Your task to perform on an android device: What's on my calendar today? Image 0: 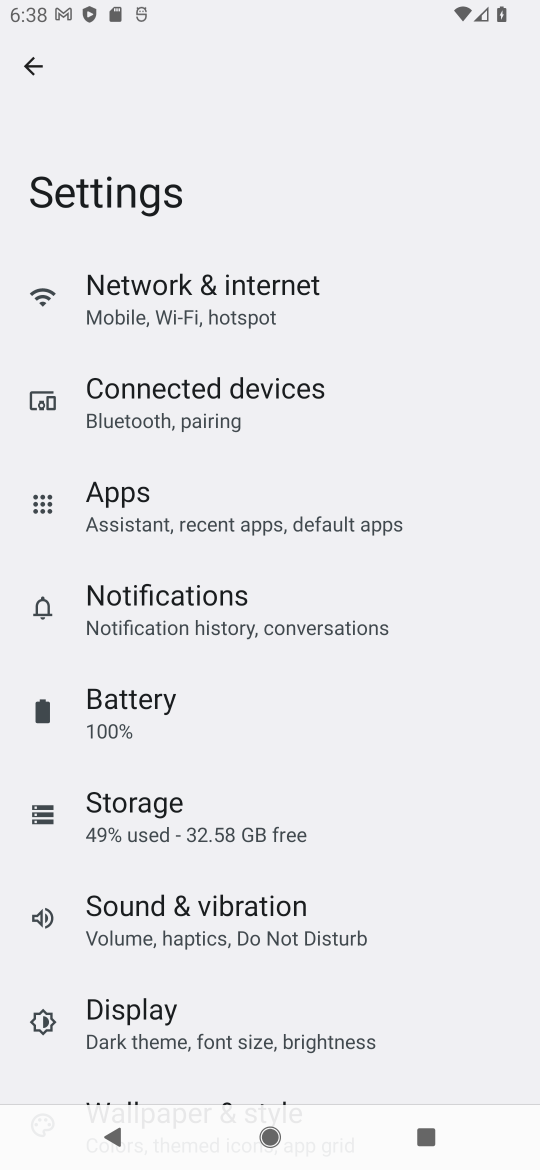
Step 0: press home button
Your task to perform on an android device: What's on my calendar today? Image 1: 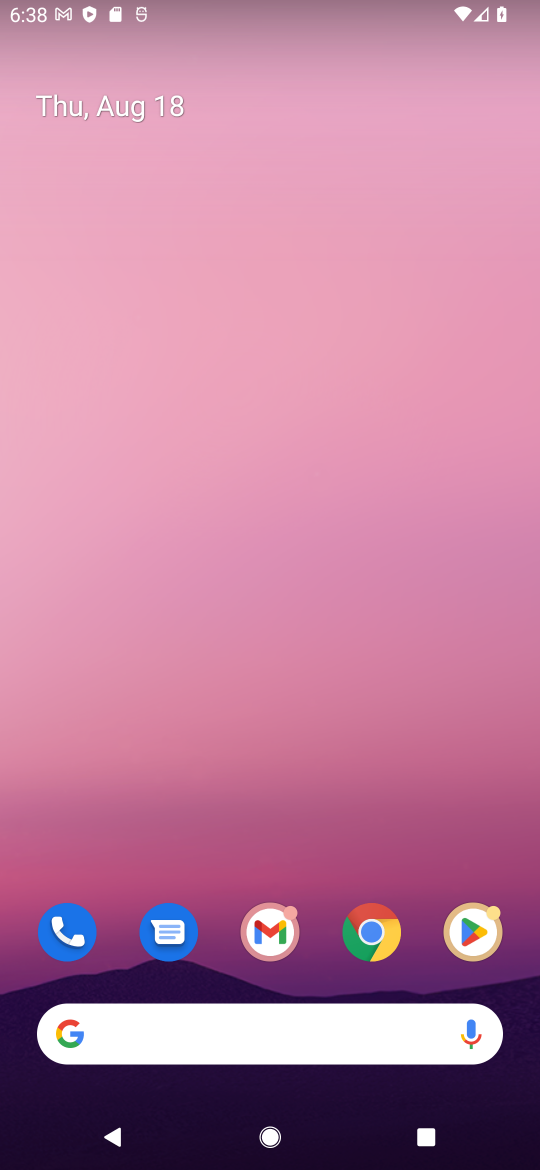
Step 1: drag from (407, 800) to (441, 8)
Your task to perform on an android device: What's on my calendar today? Image 2: 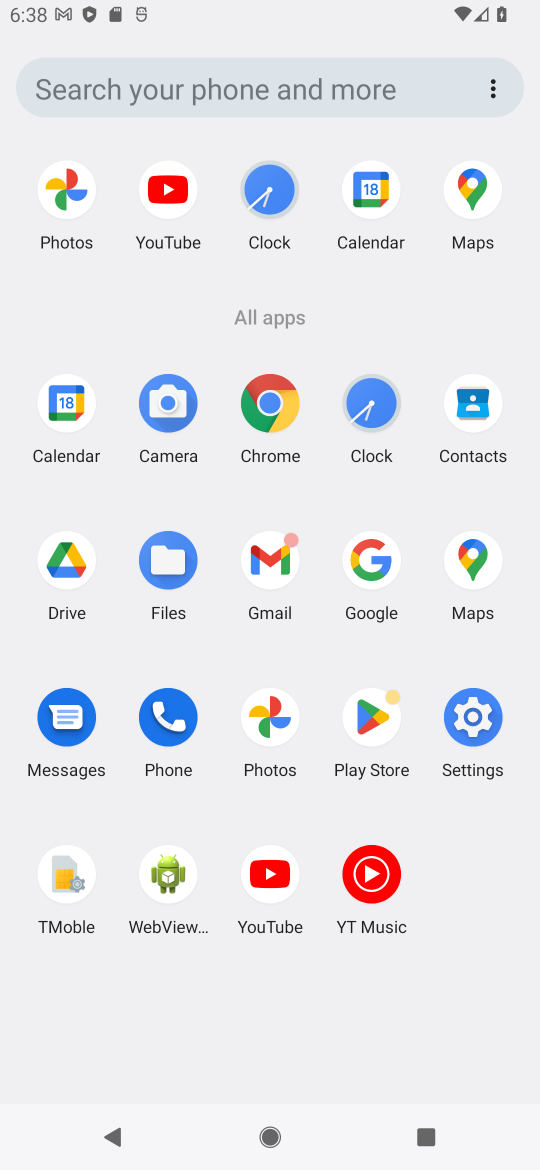
Step 2: click (378, 181)
Your task to perform on an android device: What's on my calendar today? Image 3: 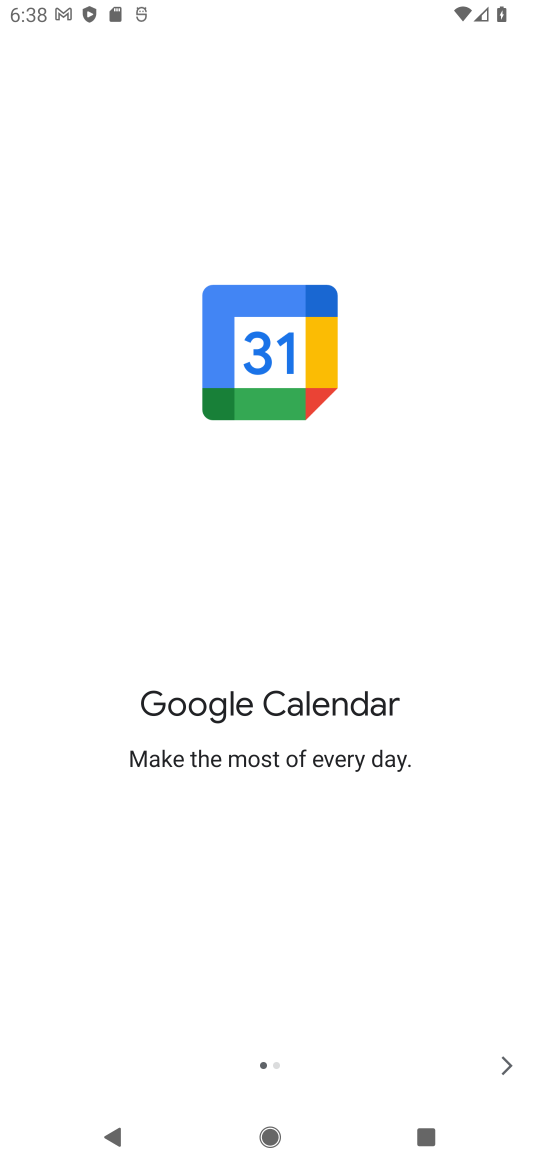
Step 3: click (504, 1056)
Your task to perform on an android device: What's on my calendar today? Image 4: 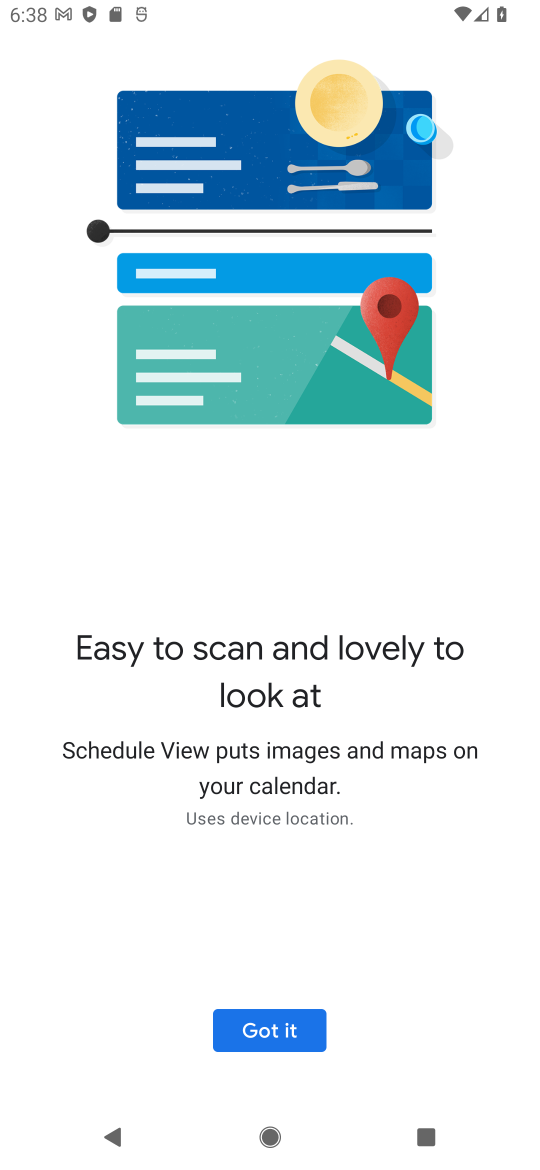
Step 4: click (293, 1027)
Your task to perform on an android device: What's on my calendar today? Image 5: 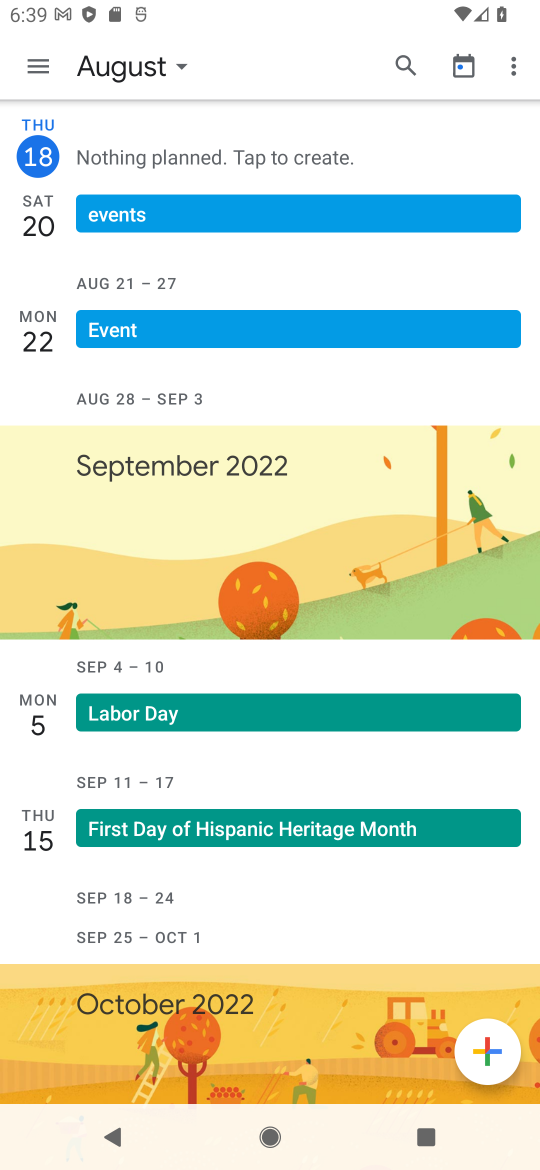
Step 5: click (118, 62)
Your task to perform on an android device: What's on my calendar today? Image 6: 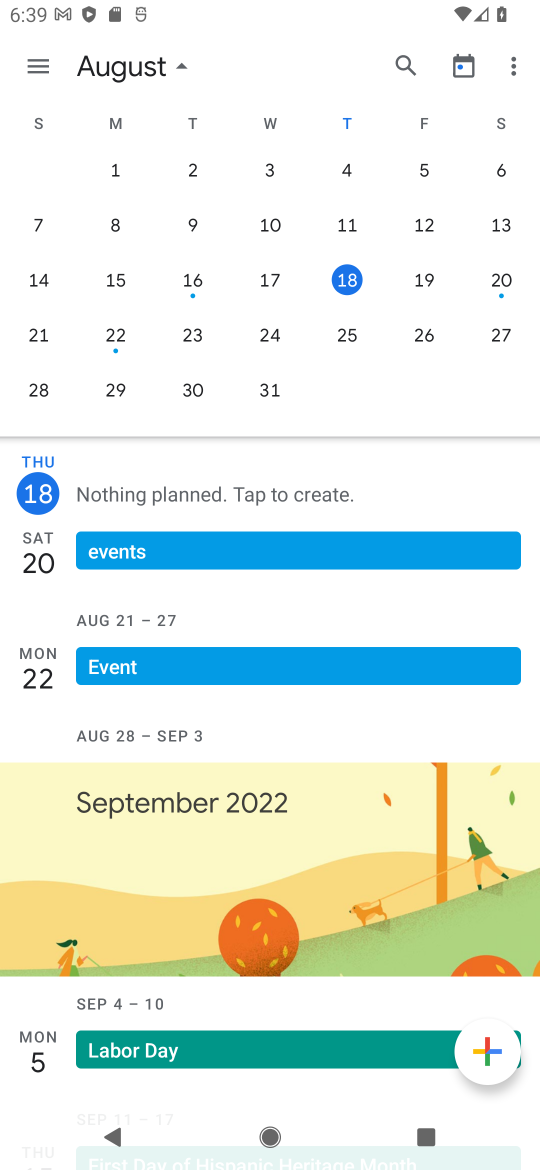
Step 6: click (353, 288)
Your task to perform on an android device: What's on my calendar today? Image 7: 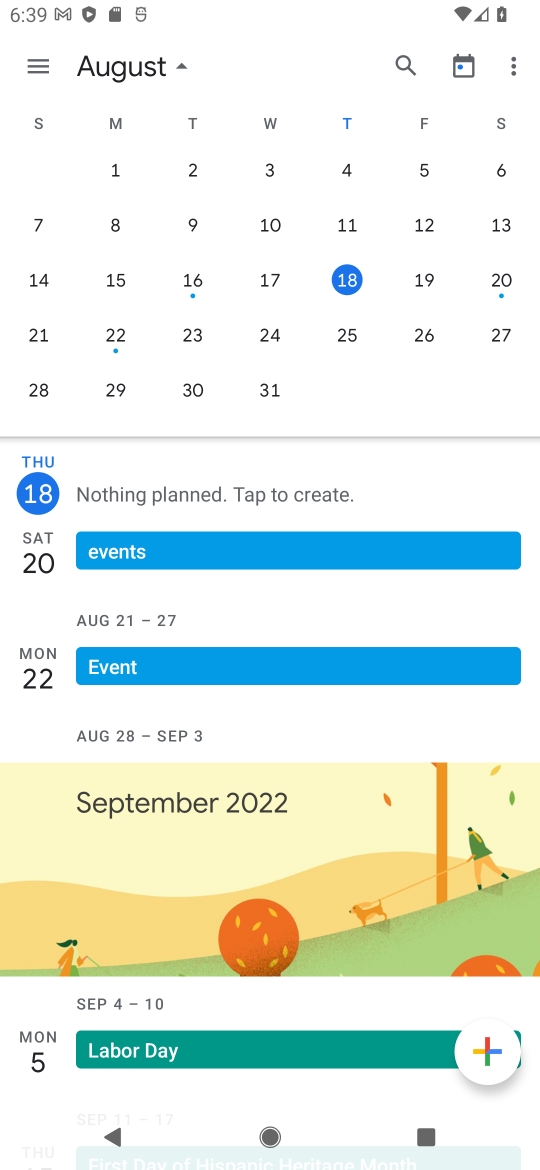
Step 7: task complete